Your task to perform on an android device: snooze an email in the gmail app Image 0: 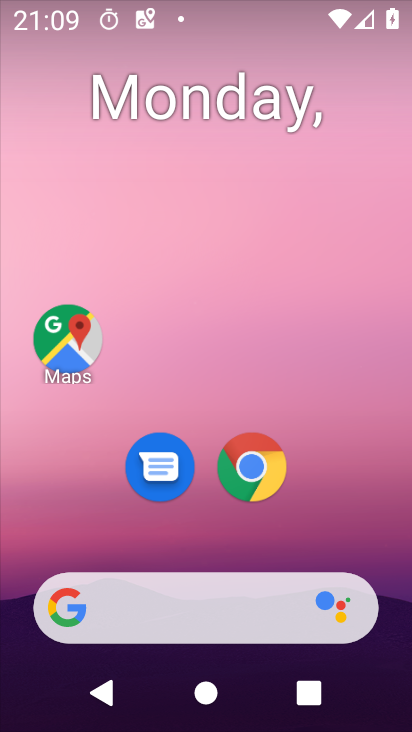
Step 0: drag from (197, 457) to (276, 58)
Your task to perform on an android device: snooze an email in the gmail app Image 1: 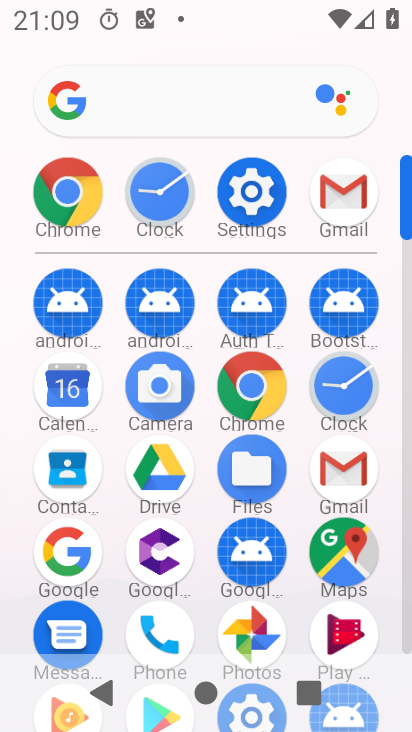
Step 1: click (333, 199)
Your task to perform on an android device: snooze an email in the gmail app Image 2: 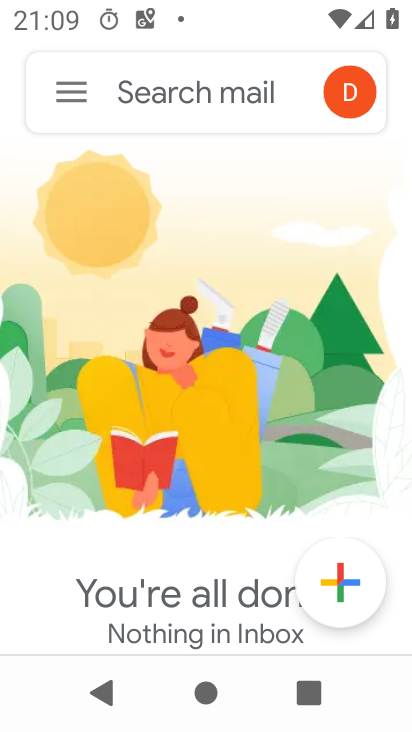
Step 2: task complete